Your task to perform on an android device: Check the news Image 0: 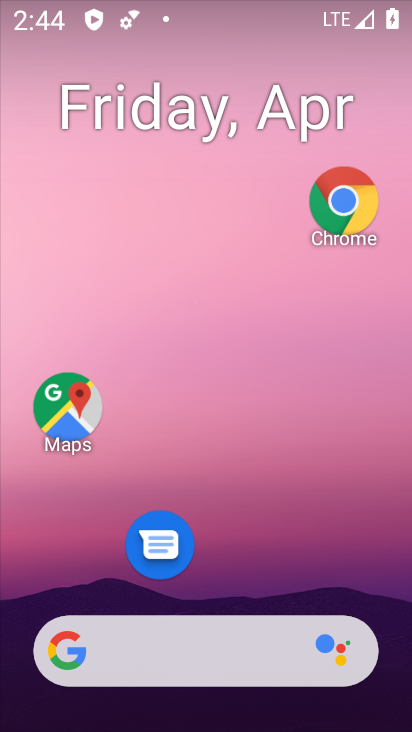
Step 0: click (212, 639)
Your task to perform on an android device: Check the news Image 1: 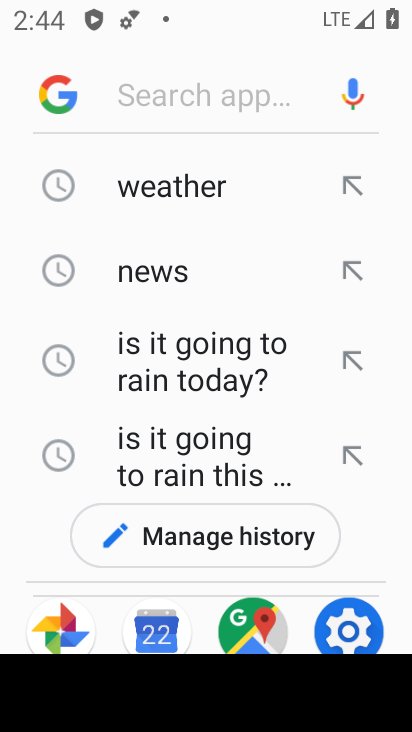
Step 1: type "news"
Your task to perform on an android device: Check the news Image 2: 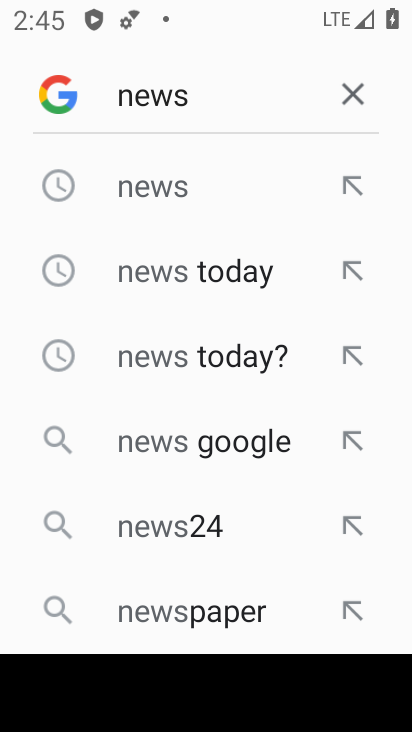
Step 2: click (210, 193)
Your task to perform on an android device: Check the news Image 3: 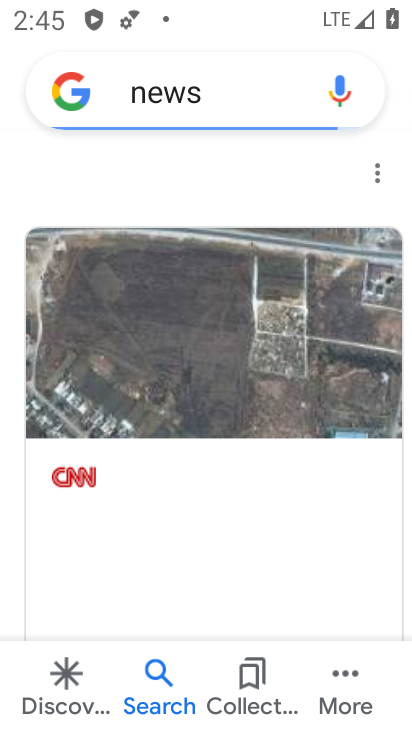
Step 3: task complete